Your task to perform on an android device: Turn on the flashlight Image 0: 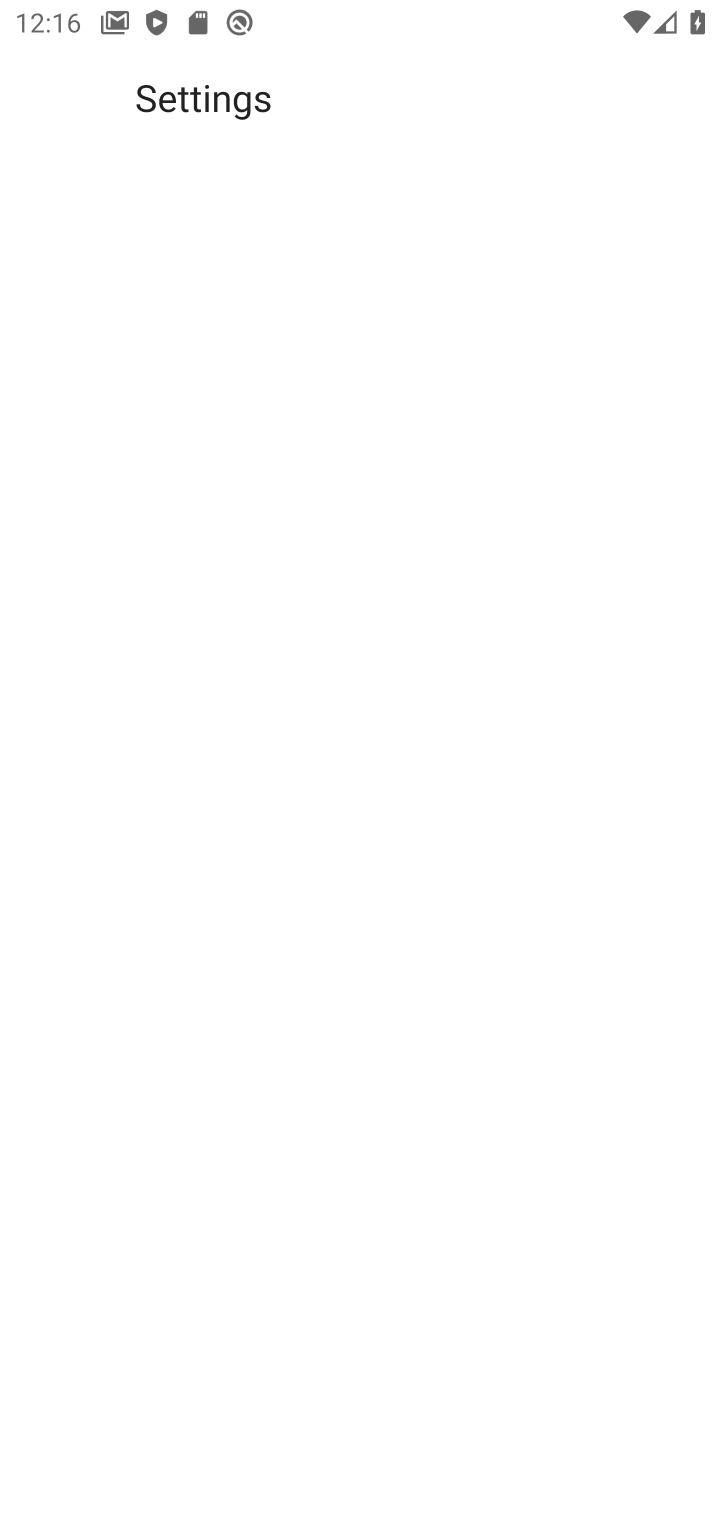
Step 0: press home button
Your task to perform on an android device: Turn on the flashlight Image 1: 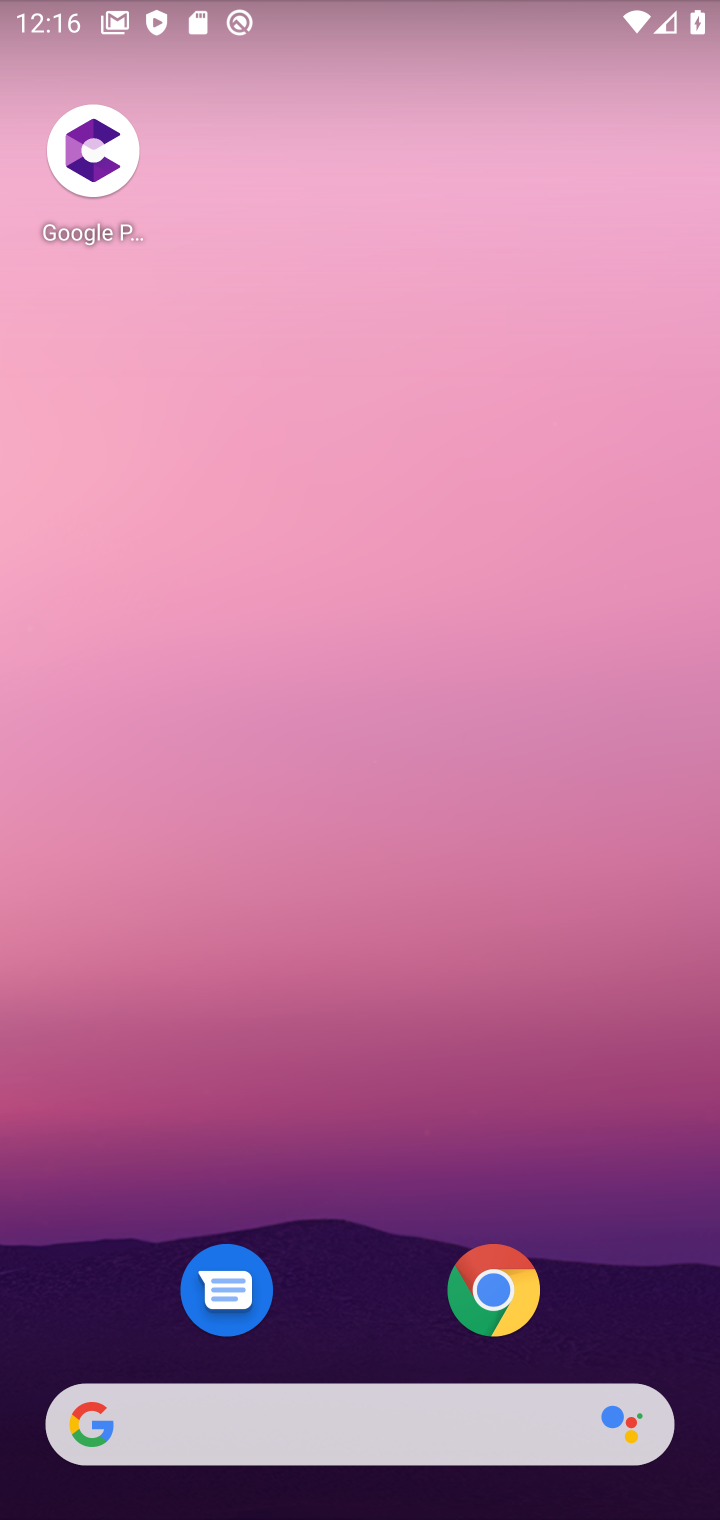
Step 1: drag from (342, 1267) to (463, 110)
Your task to perform on an android device: Turn on the flashlight Image 2: 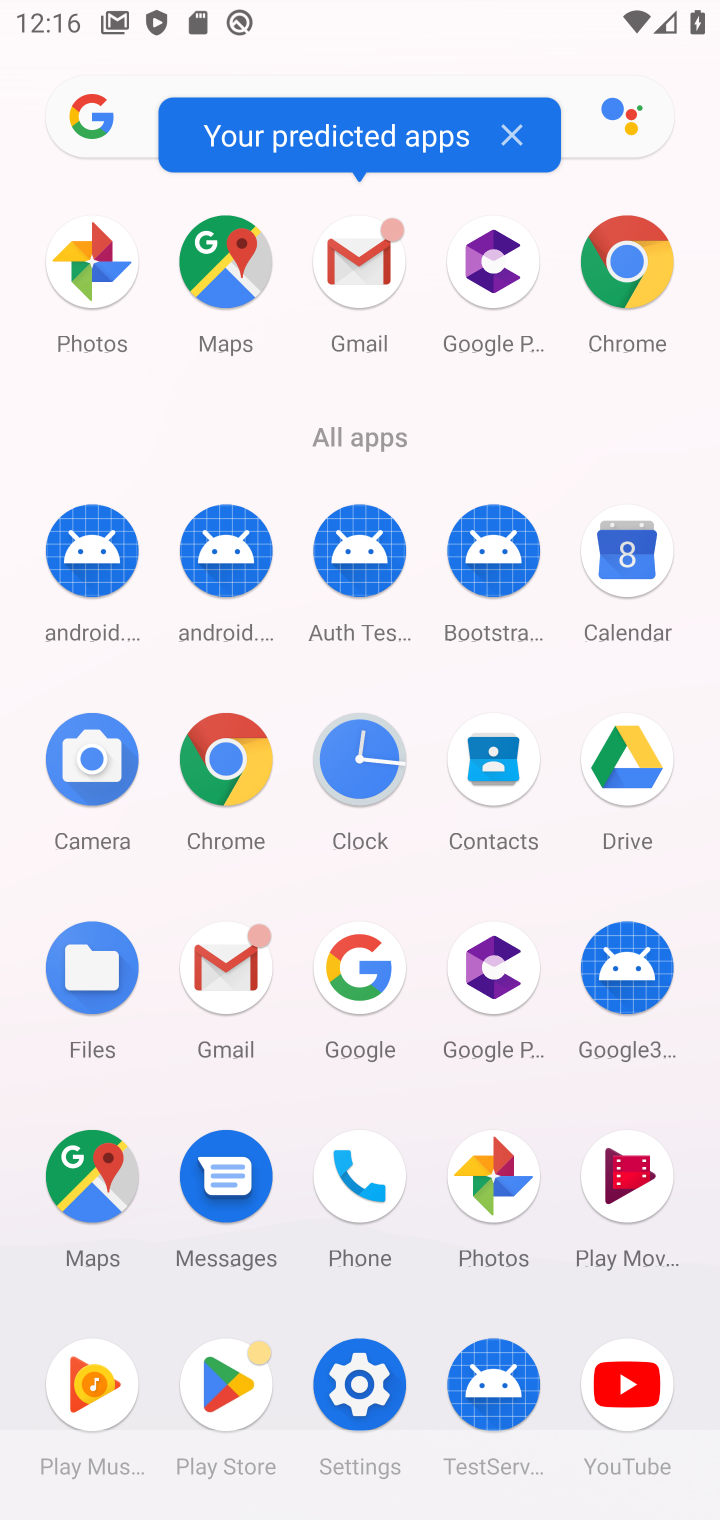
Step 2: click (362, 1373)
Your task to perform on an android device: Turn on the flashlight Image 3: 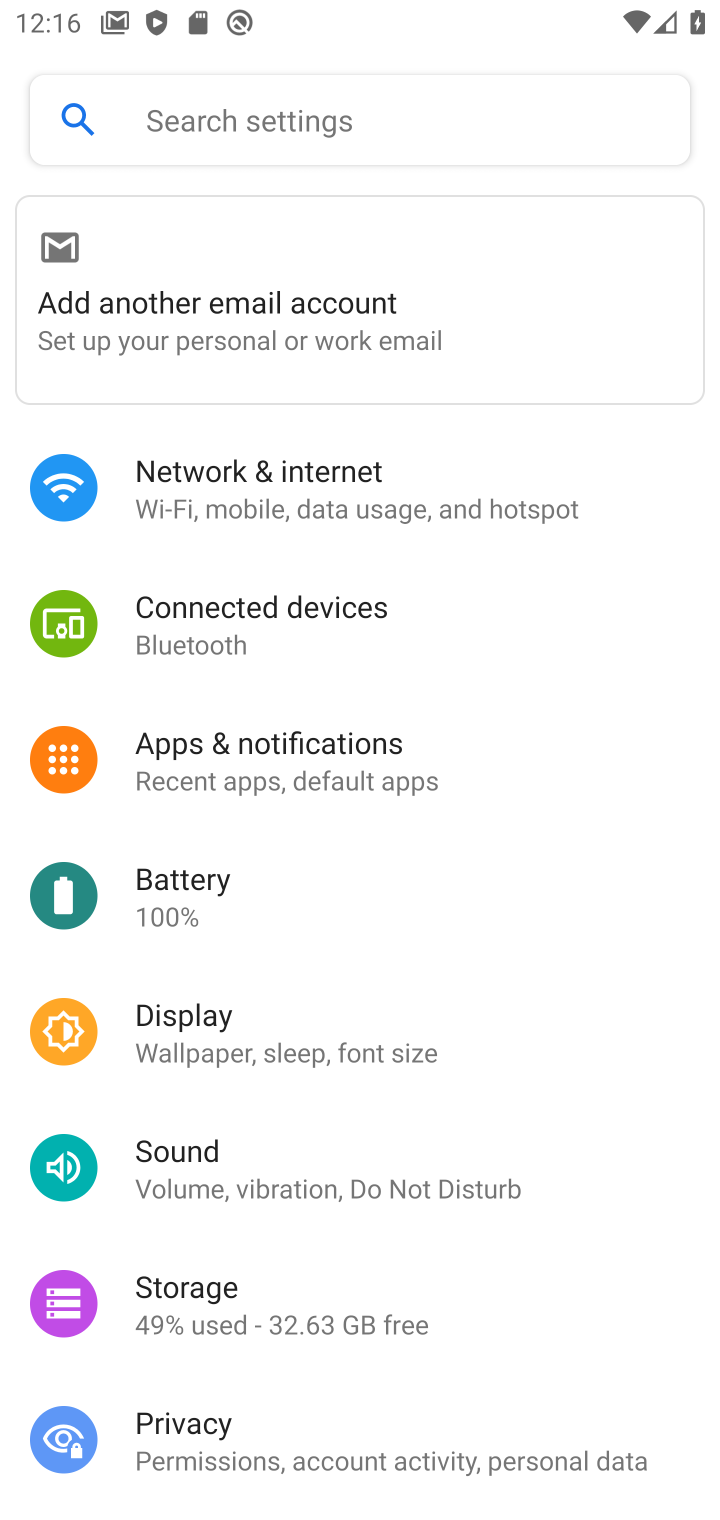
Step 3: task complete